Your task to perform on an android device: Search for Italian restaurants on Maps Image 0: 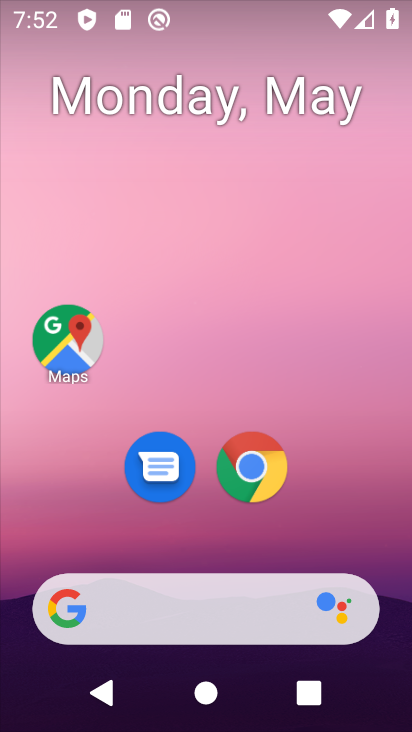
Step 0: click (72, 337)
Your task to perform on an android device: Search for Italian restaurants on Maps Image 1: 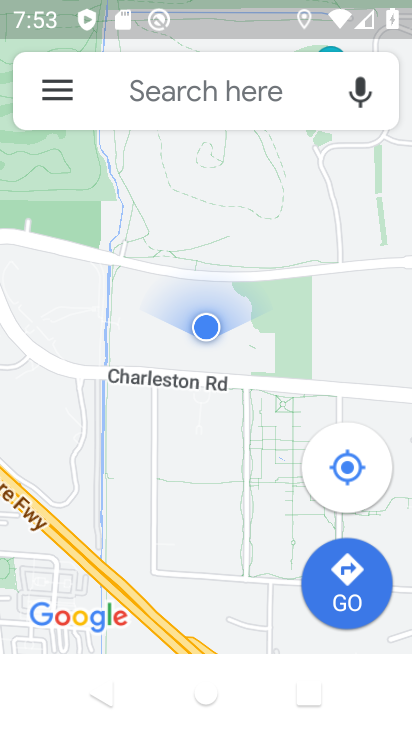
Step 1: click (230, 89)
Your task to perform on an android device: Search for Italian restaurants on Maps Image 2: 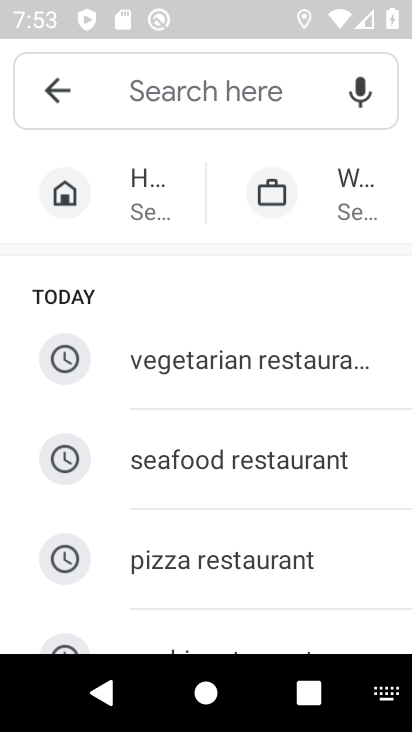
Step 2: drag from (252, 589) to (252, 245)
Your task to perform on an android device: Search for Italian restaurants on Maps Image 3: 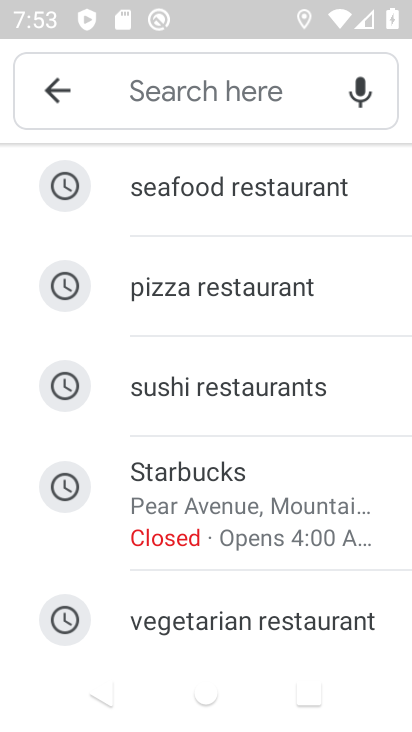
Step 3: drag from (236, 583) to (257, 221)
Your task to perform on an android device: Search for Italian restaurants on Maps Image 4: 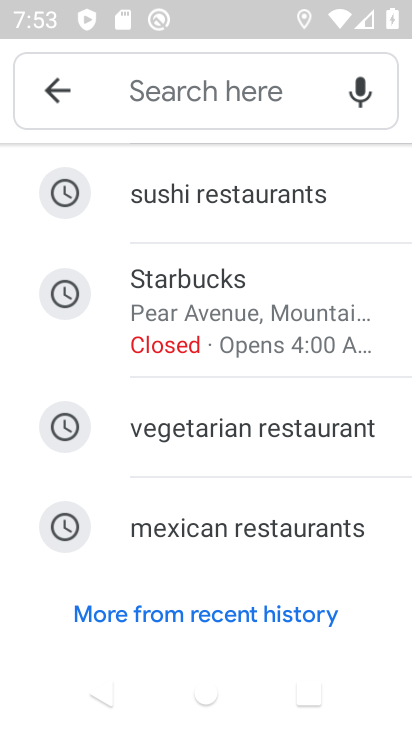
Step 4: click (228, 100)
Your task to perform on an android device: Search for Italian restaurants on Maps Image 5: 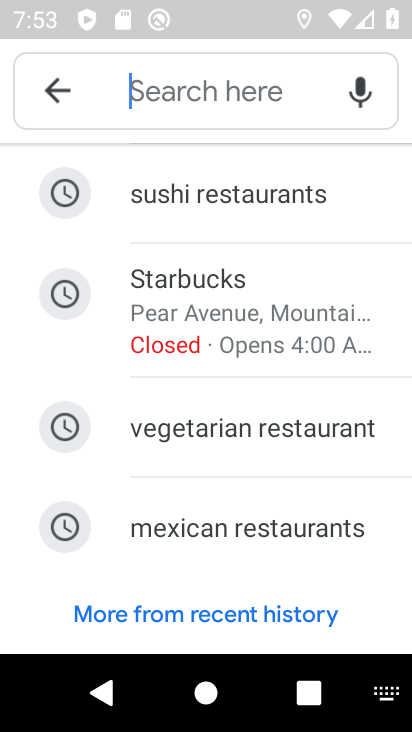
Step 5: type "italian restaurants"
Your task to perform on an android device: Search for Italian restaurants on Maps Image 6: 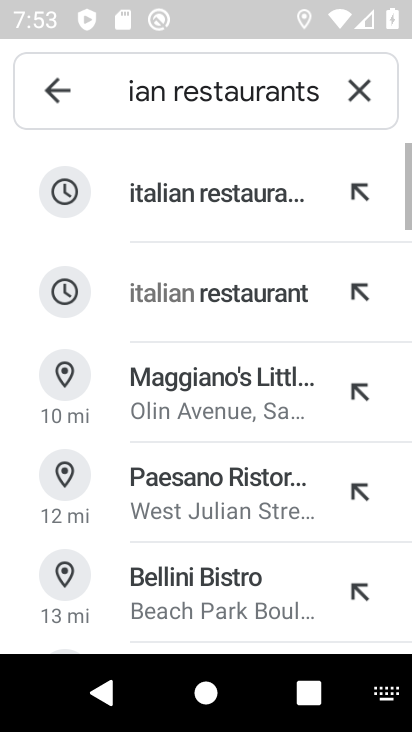
Step 6: click (247, 181)
Your task to perform on an android device: Search for Italian restaurants on Maps Image 7: 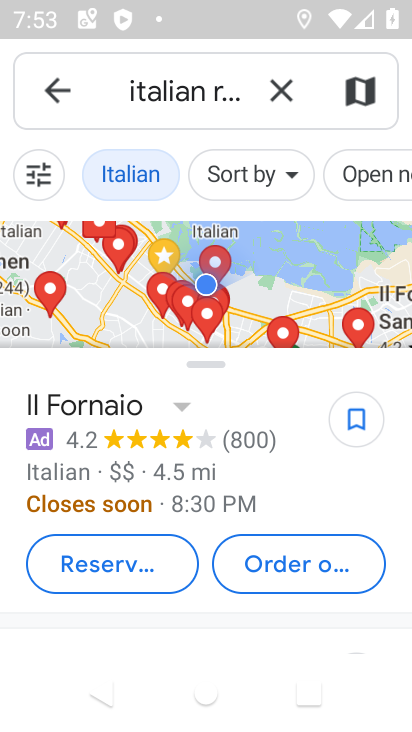
Step 7: task complete